Your task to perform on an android device: Search for sushi restaurants on Maps Image 0: 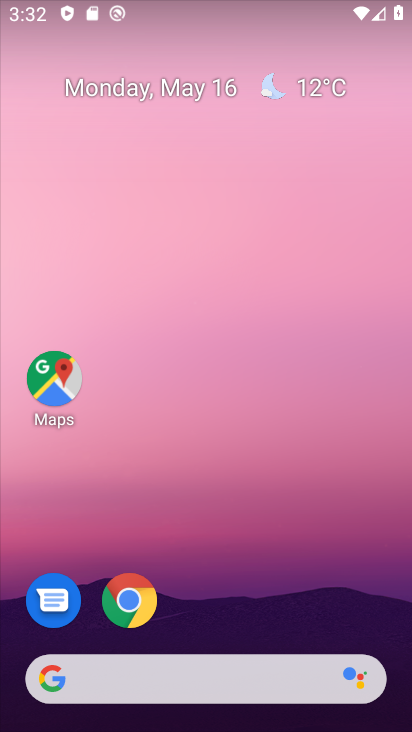
Step 0: click (131, 609)
Your task to perform on an android device: Search for sushi restaurants on Maps Image 1: 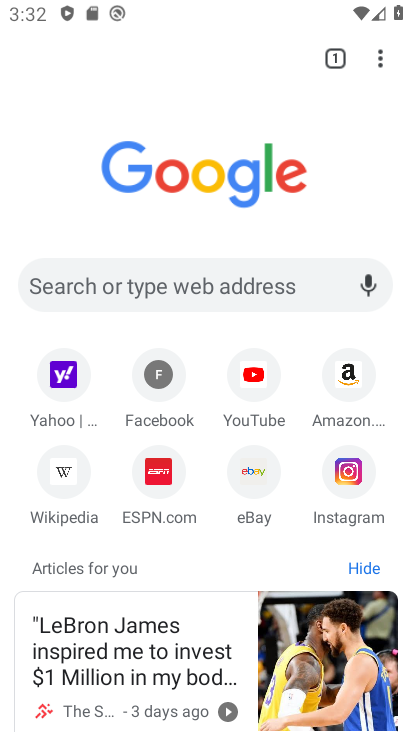
Step 1: press home button
Your task to perform on an android device: Search for sushi restaurants on Maps Image 2: 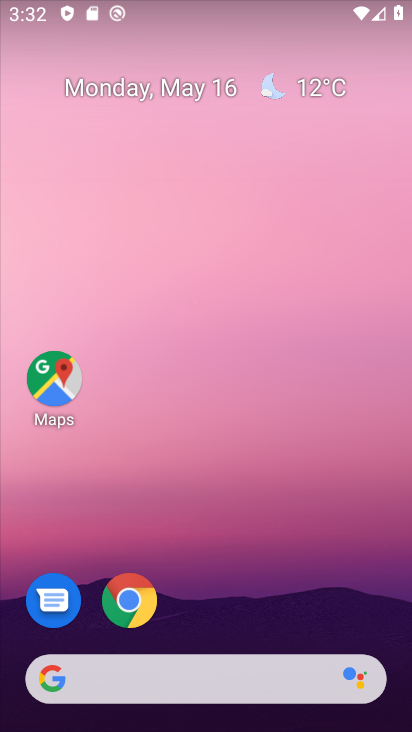
Step 2: click (59, 386)
Your task to perform on an android device: Search for sushi restaurants on Maps Image 3: 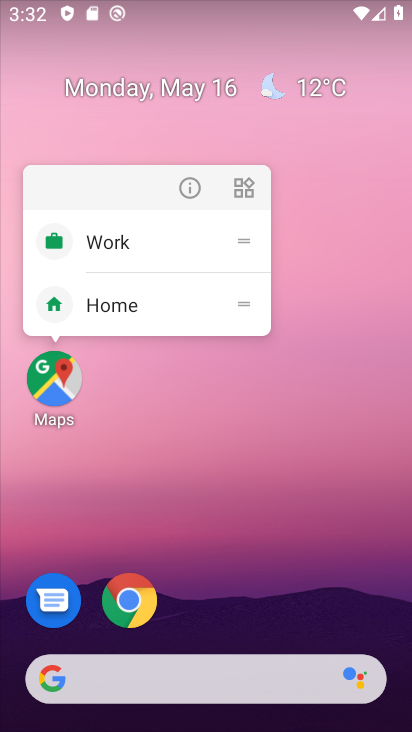
Step 3: click (56, 371)
Your task to perform on an android device: Search for sushi restaurants on Maps Image 4: 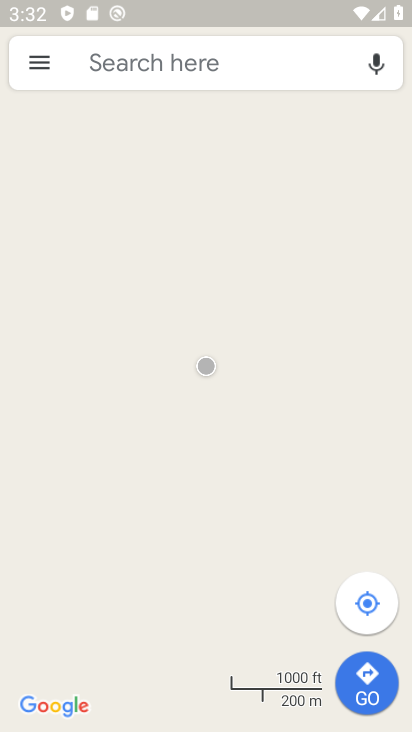
Step 4: click (206, 64)
Your task to perform on an android device: Search for sushi restaurants on Maps Image 5: 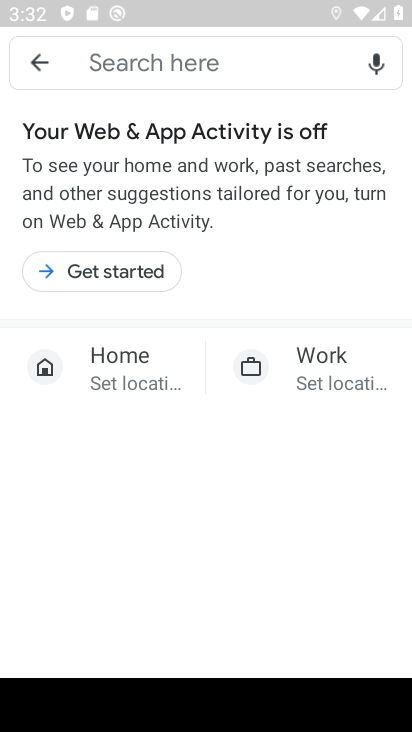
Step 5: click (103, 62)
Your task to perform on an android device: Search for sushi restaurants on Maps Image 6: 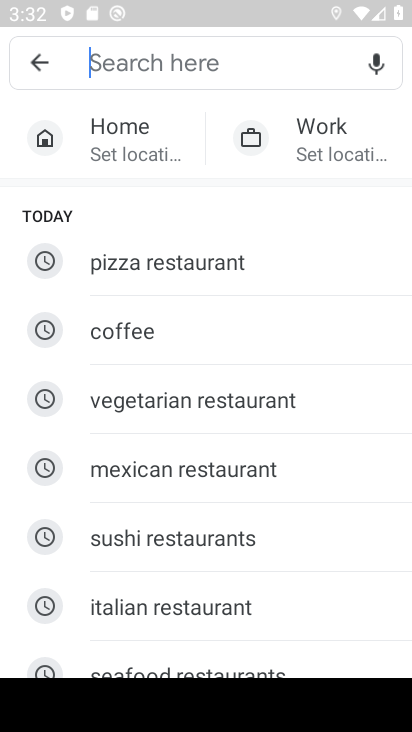
Step 6: type "sus"
Your task to perform on an android device: Search for sushi restaurants on Maps Image 7: 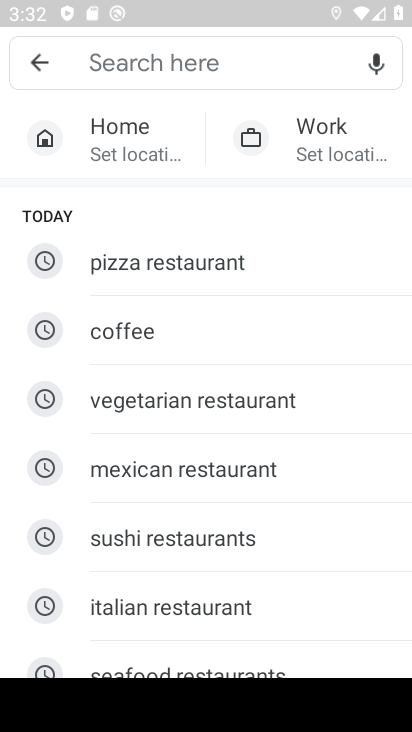
Step 7: click (182, 544)
Your task to perform on an android device: Search for sushi restaurants on Maps Image 8: 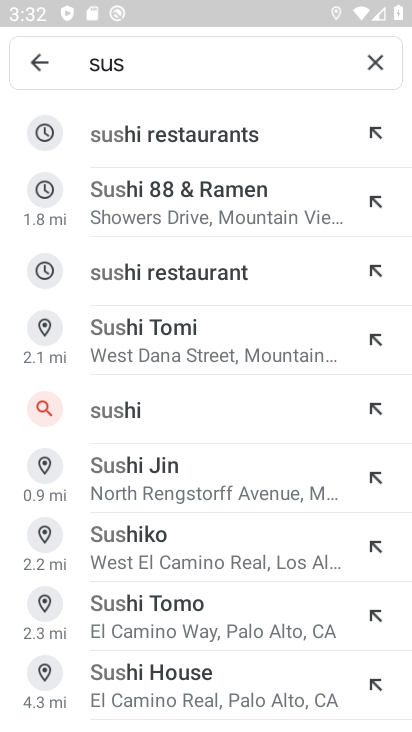
Step 8: click (198, 143)
Your task to perform on an android device: Search for sushi restaurants on Maps Image 9: 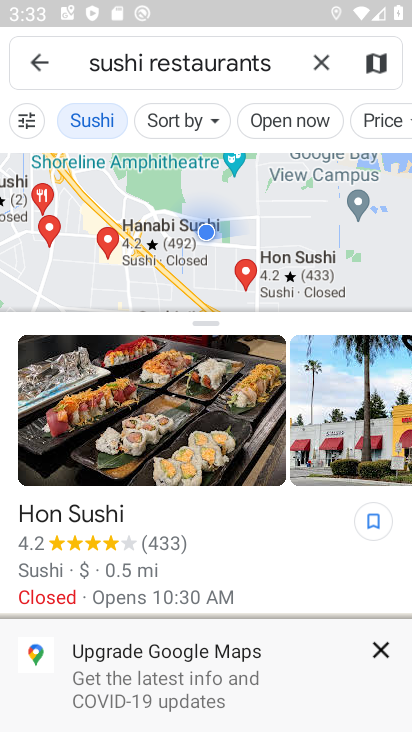
Step 9: task complete